Your task to perform on an android device: toggle translation in the chrome app Image 0: 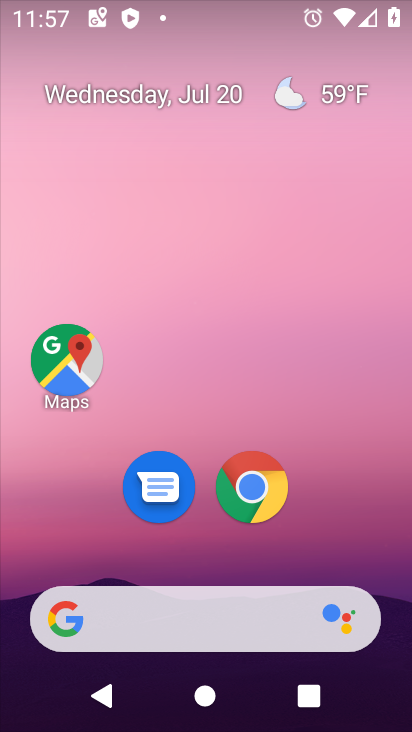
Step 0: press home button
Your task to perform on an android device: toggle translation in the chrome app Image 1: 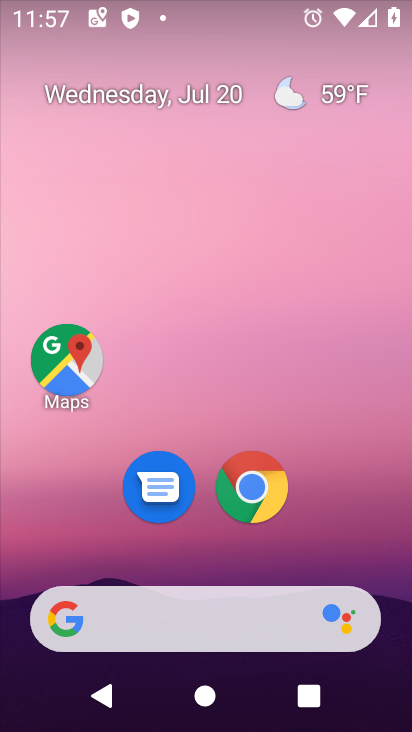
Step 1: drag from (324, 530) to (355, 43)
Your task to perform on an android device: toggle translation in the chrome app Image 2: 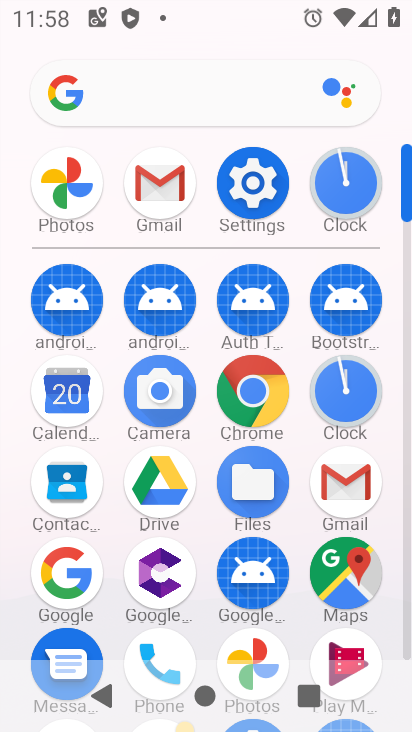
Step 2: click (252, 379)
Your task to perform on an android device: toggle translation in the chrome app Image 3: 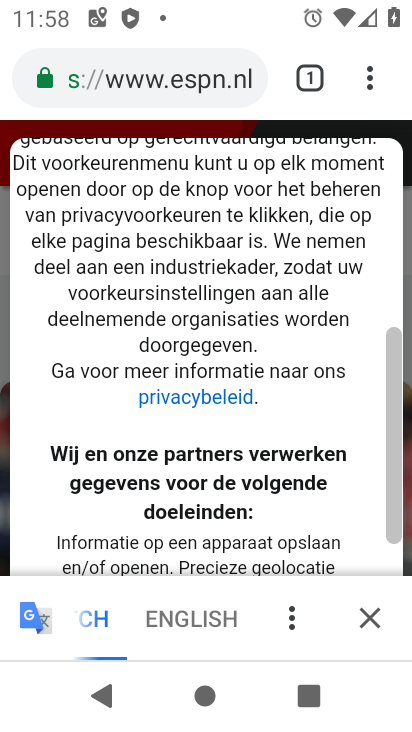
Step 3: click (370, 85)
Your task to perform on an android device: toggle translation in the chrome app Image 4: 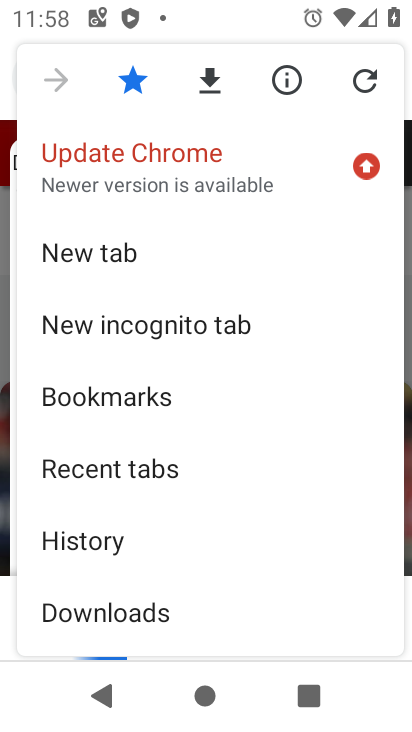
Step 4: drag from (311, 452) to (309, 304)
Your task to perform on an android device: toggle translation in the chrome app Image 5: 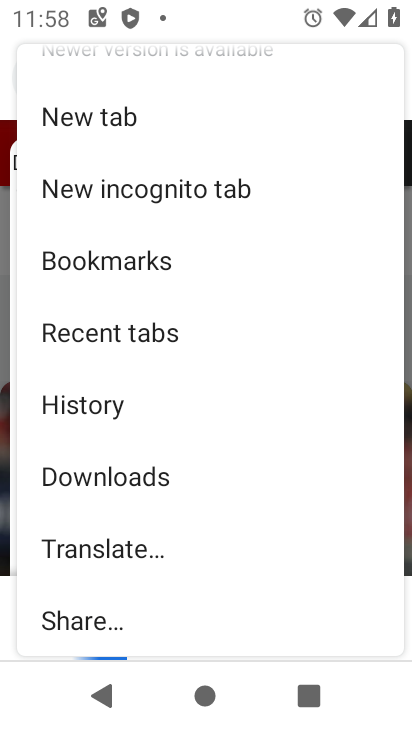
Step 5: drag from (309, 426) to (309, 321)
Your task to perform on an android device: toggle translation in the chrome app Image 6: 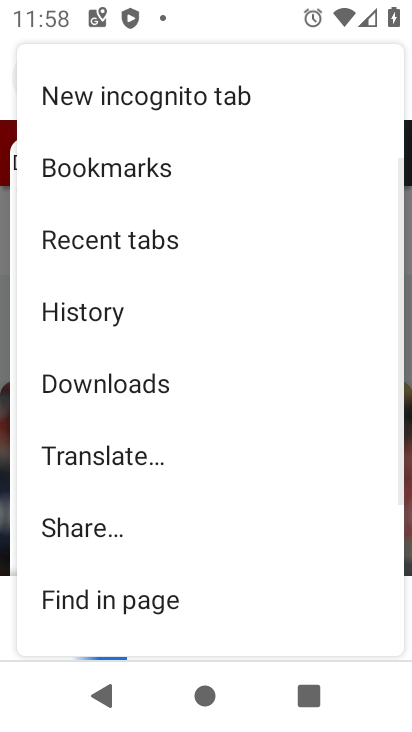
Step 6: drag from (297, 441) to (305, 263)
Your task to perform on an android device: toggle translation in the chrome app Image 7: 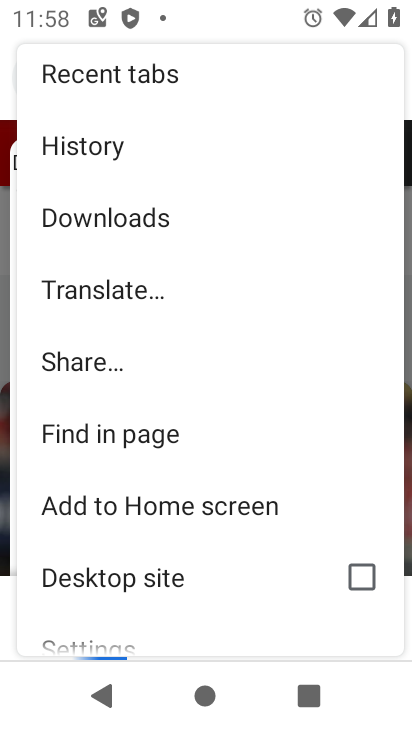
Step 7: drag from (305, 390) to (308, 270)
Your task to perform on an android device: toggle translation in the chrome app Image 8: 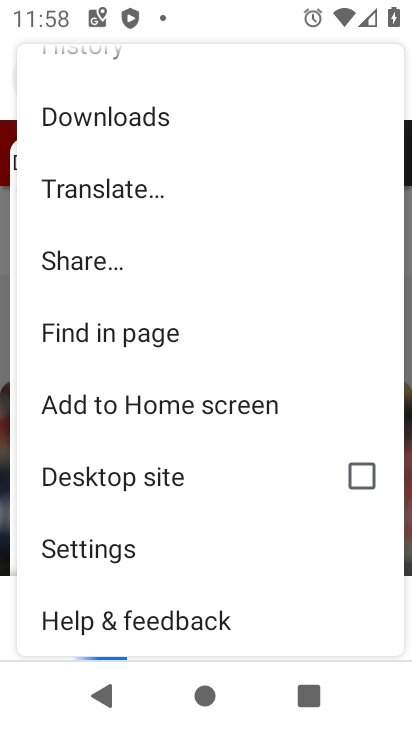
Step 8: drag from (308, 379) to (315, 230)
Your task to perform on an android device: toggle translation in the chrome app Image 9: 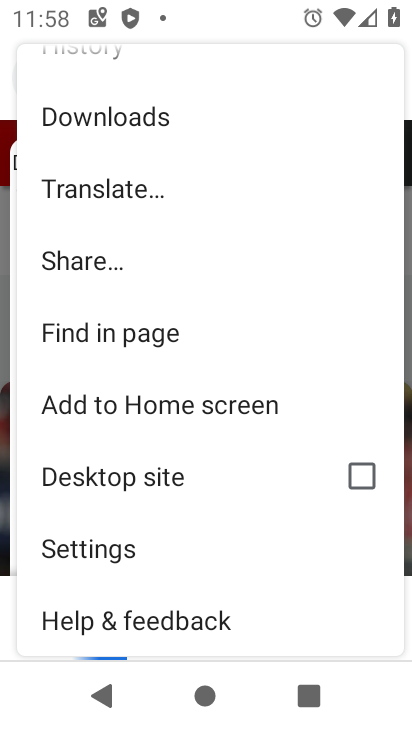
Step 9: click (193, 538)
Your task to perform on an android device: toggle translation in the chrome app Image 10: 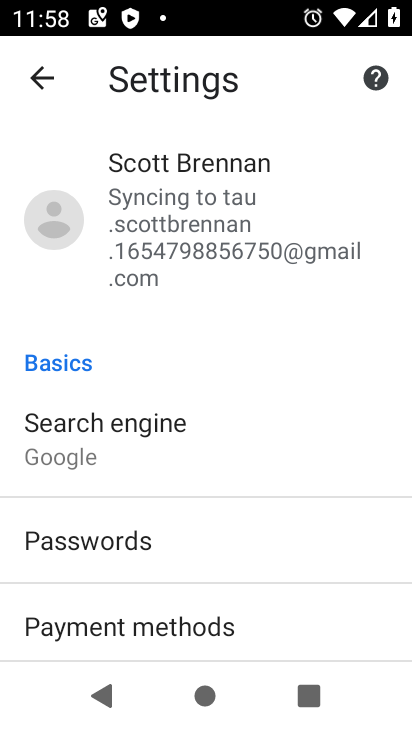
Step 10: drag from (286, 521) to (306, 407)
Your task to perform on an android device: toggle translation in the chrome app Image 11: 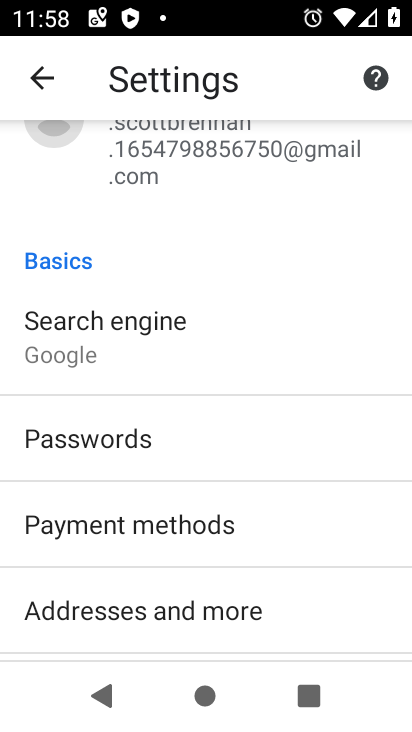
Step 11: drag from (332, 525) to (341, 383)
Your task to perform on an android device: toggle translation in the chrome app Image 12: 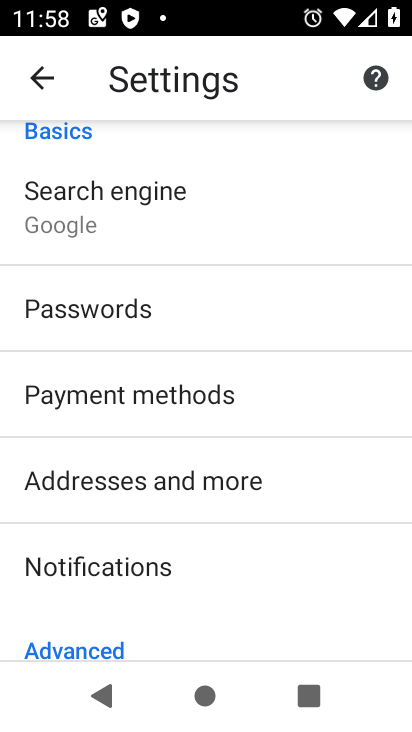
Step 12: drag from (355, 528) to (342, 355)
Your task to perform on an android device: toggle translation in the chrome app Image 13: 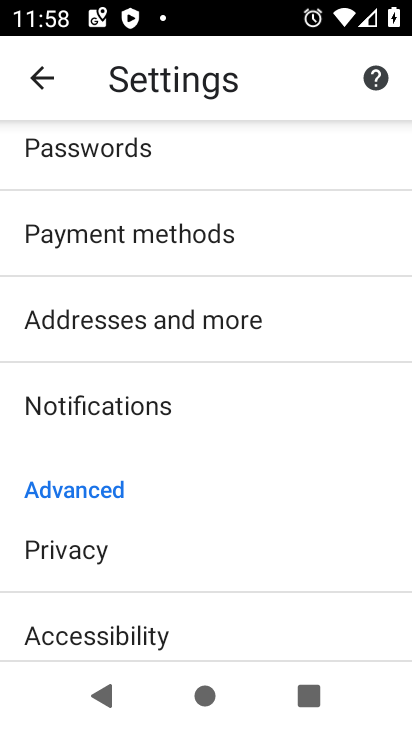
Step 13: drag from (332, 492) to (336, 349)
Your task to perform on an android device: toggle translation in the chrome app Image 14: 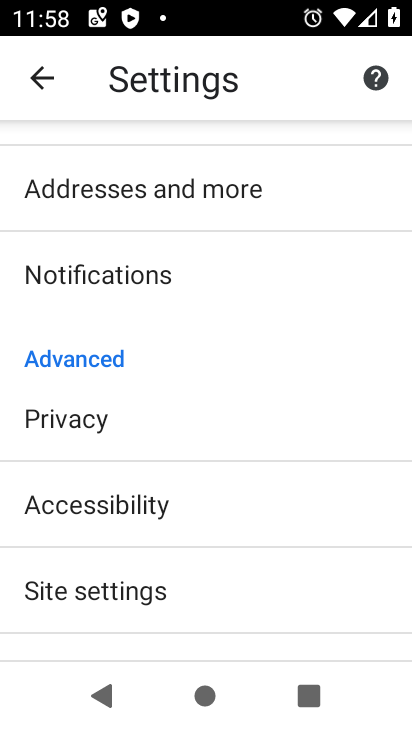
Step 14: drag from (297, 583) to (319, 363)
Your task to perform on an android device: toggle translation in the chrome app Image 15: 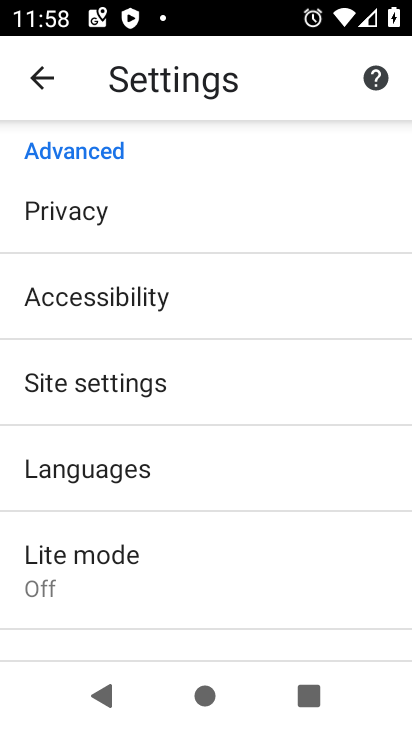
Step 15: click (262, 473)
Your task to perform on an android device: toggle translation in the chrome app Image 16: 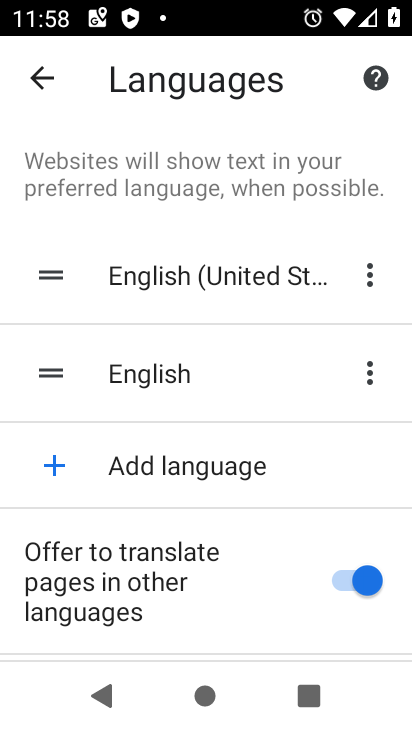
Step 16: drag from (247, 618) to (260, 534)
Your task to perform on an android device: toggle translation in the chrome app Image 17: 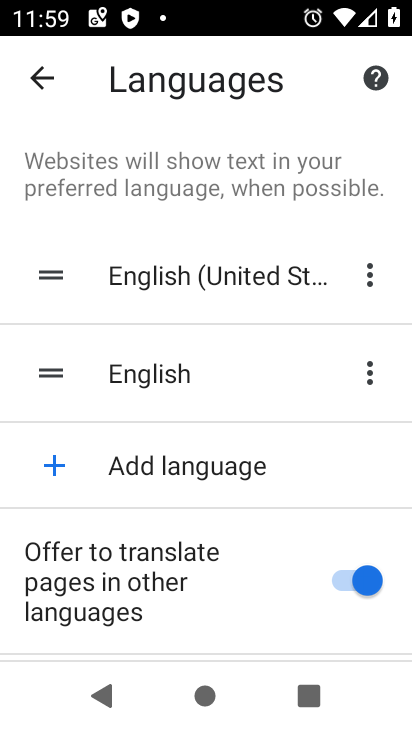
Step 17: click (354, 585)
Your task to perform on an android device: toggle translation in the chrome app Image 18: 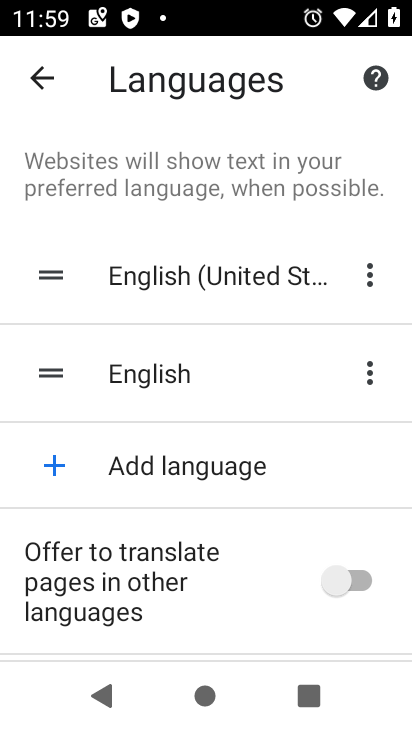
Step 18: task complete